Your task to perform on an android device: open wifi settings Image 0: 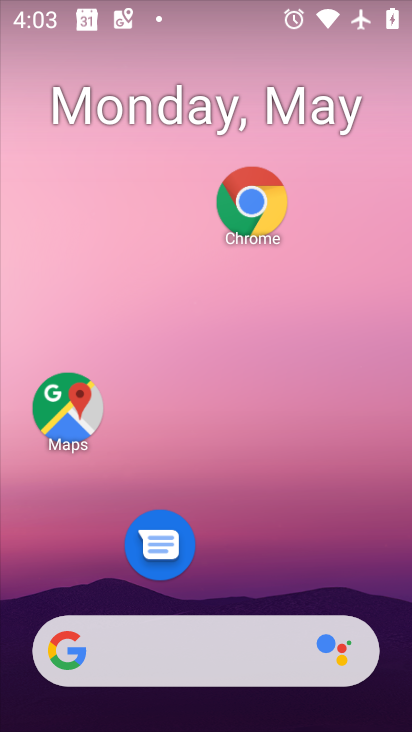
Step 0: drag from (222, 573) to (180, 106)
Your task to perform on an android device: open wifi settings Image 1: 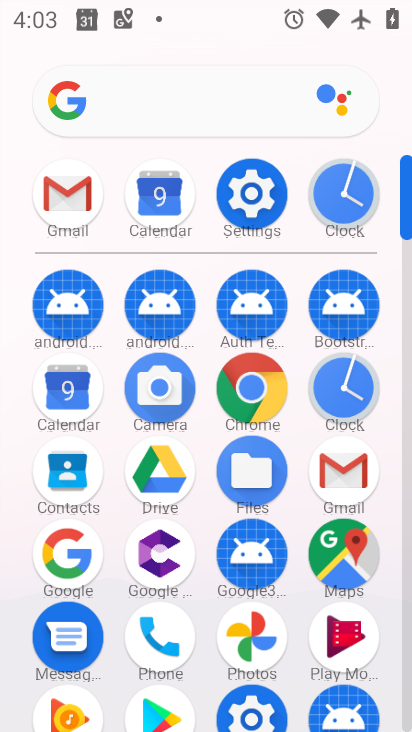
Step 1: click (255, 165)
Your task to perform on an android device: open wifi settings Image 2: 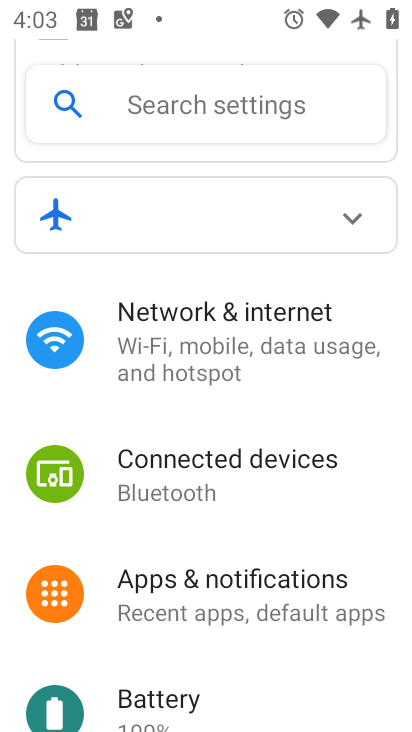
Step 2: click (240, 326)
Your task to perform on an android device: open wifi settings Image 3: 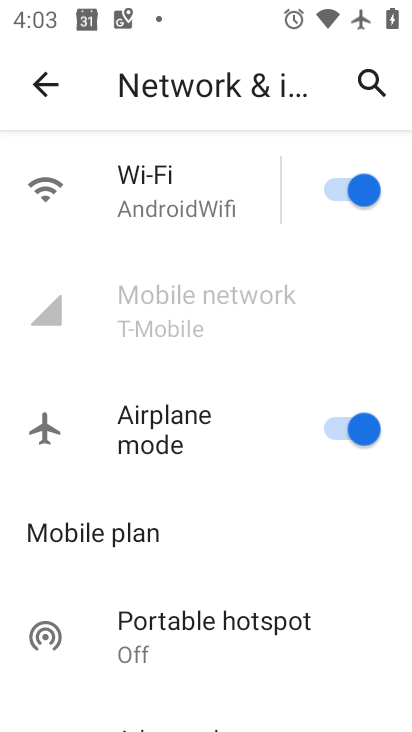
Step 3: click (181, 187)
Your task to perform on an android device: open wifi settings Image 4: 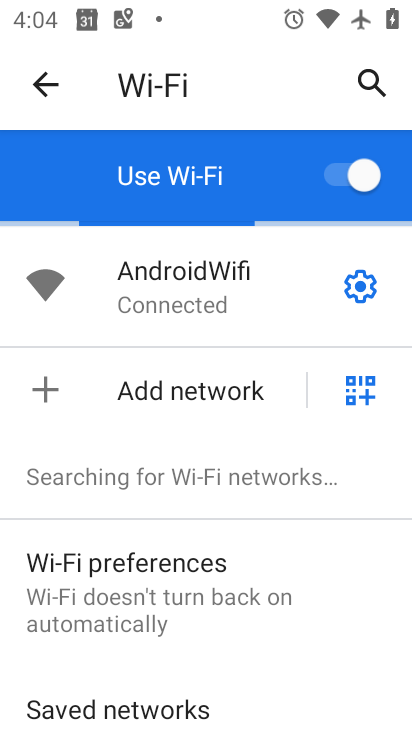
Step 4: task complete